Your task to perform on an android device: Go to wifi settings Image 0: 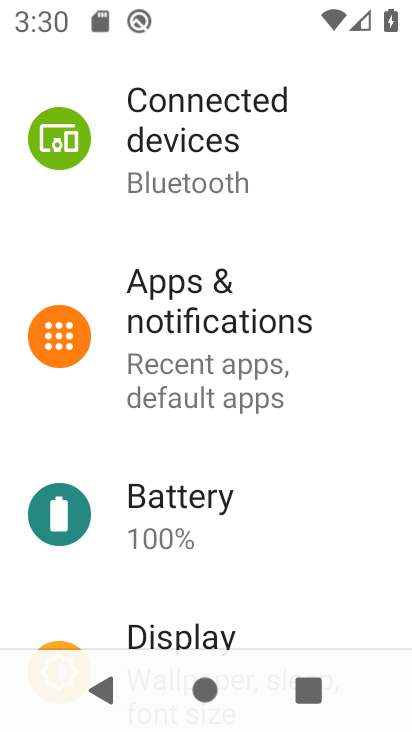
Step 0: drag from (301, 235) to (307, 665)
Your task to perform on an android device: Go to wifi settings Image 1: 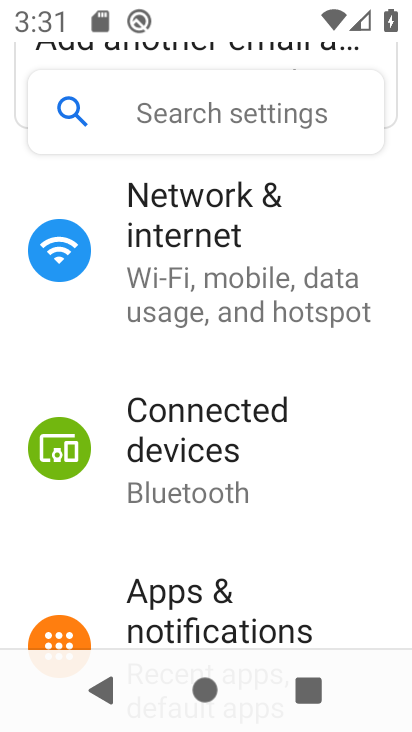
Step 1: click (249, 252)
Your task to perform on an android device: Go to wifi settings Image 2: 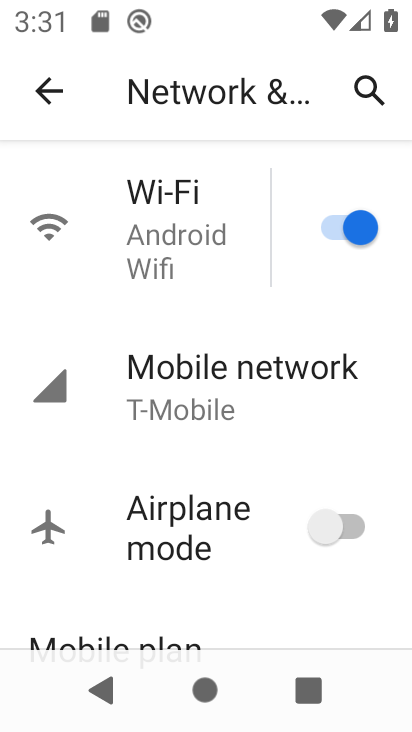
Step 2: click (185, 246)
Your task to perform on an android device: Go to wifi settings Image 3: 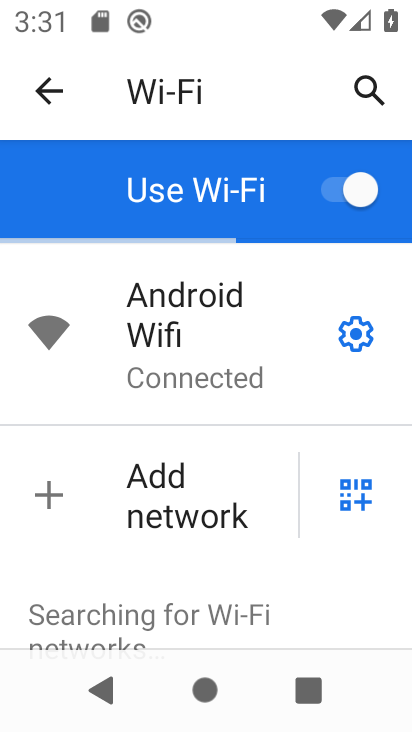
Step 3: task complete